Your task to perform on an android device: Show me popular games on the Play Store Image 0: 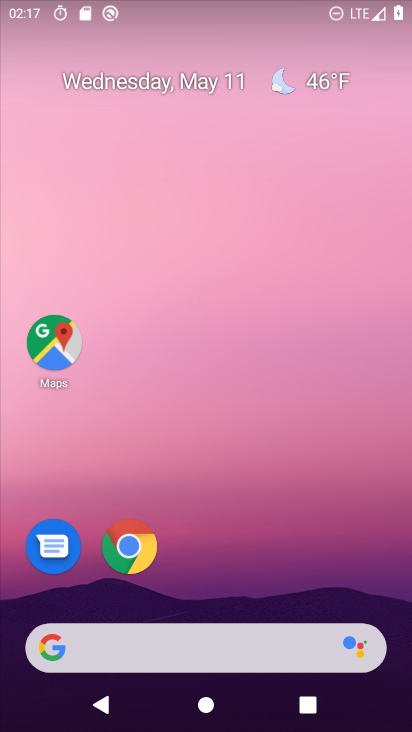
Step 0: drag from (231, 669) to (251, 251)
Your task to perform on an android device: Show me popular games on the Play Store Image 1: 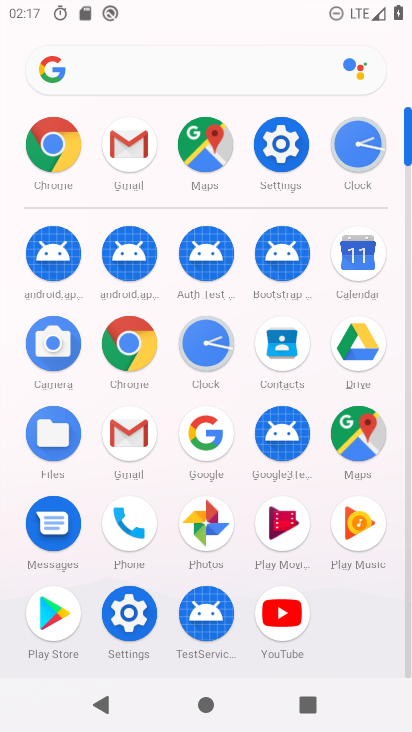
Step 1: click (54, 610)
Your task to perform on an android device: Show me popular games on the Play Store Image 2: 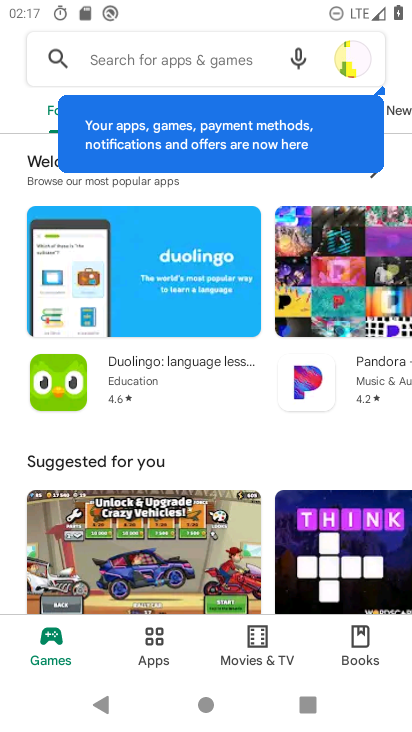
Step 2: click (200, 64)
Your task to perform on an android device: Show me popular games on the Play Store Image 3: 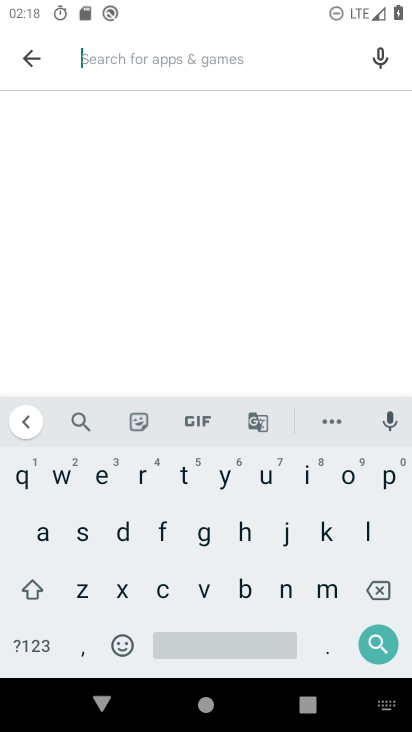
Step 3: click (380, 481)
Your task to perform on an android device: Show me popular games on the Play Store Image 4: 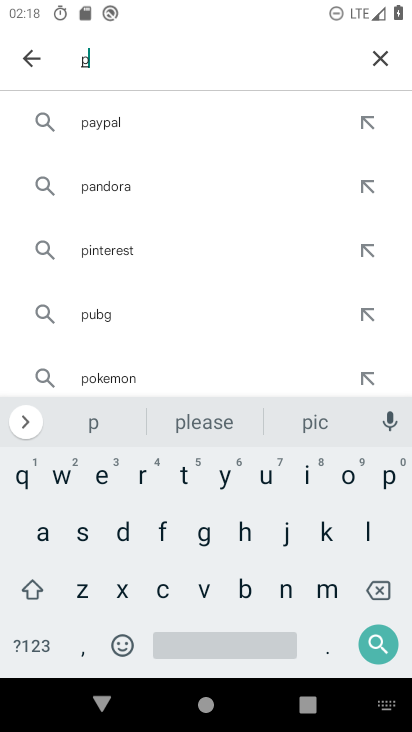
Step 4: click (341, 481)
Your task to perform on an android device: Show me popular games on the Play Store Image 5: 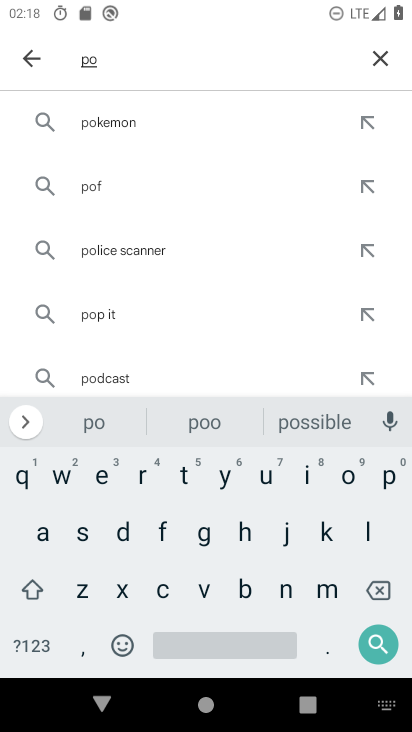
Step 5: click (376, 476)
Your task to perform on an android device: Show me popular games on the Play Store Image 6: 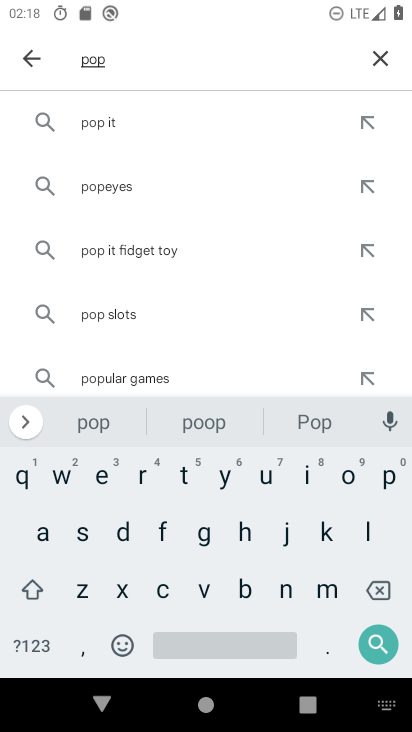
Step 6: click (263, 473)
Your task to perform on an android device: Show me popular games on the Play Store Image 7: 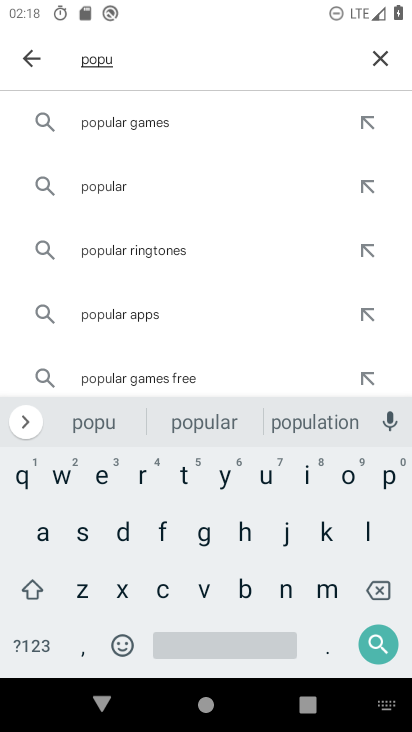
Step 7: click (108, 131)
Your task to perform on an android device: Show me popular games on the Play Store Image 8: 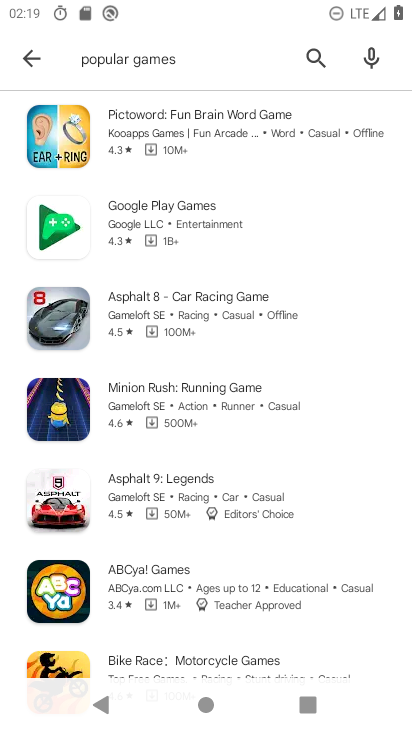
Step 8: task complete